Your task to perform on an android device: set an alarm Image 0: 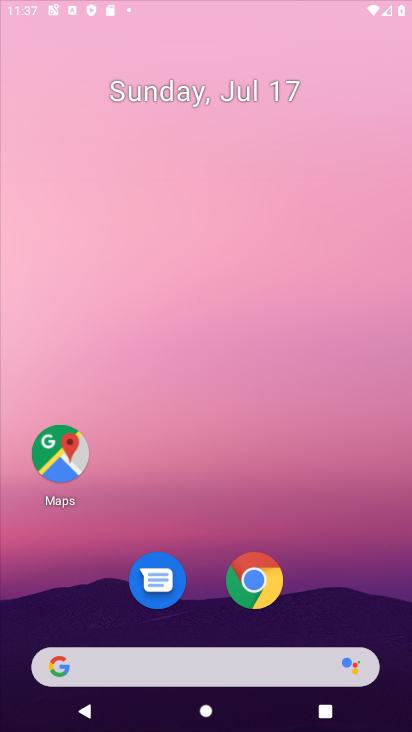
Step 0: press home button
Your task to perform on an android device: set an alarm Image 1: 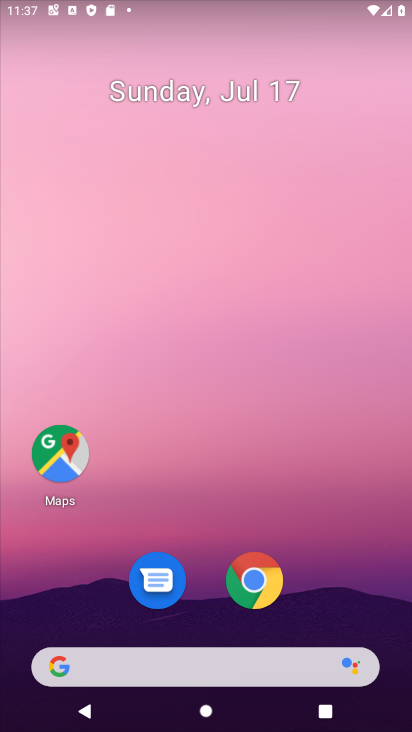
Step 1: drag from (217, 653) to (230, 222)
Your task to perform on an android device: set an alarm Image 2: 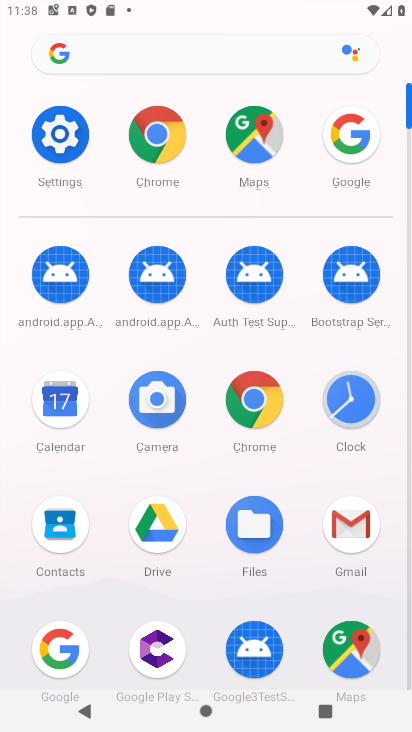
Step 2: click (364, 404)
Your task to perform on an android device: set an alarm Image 3: 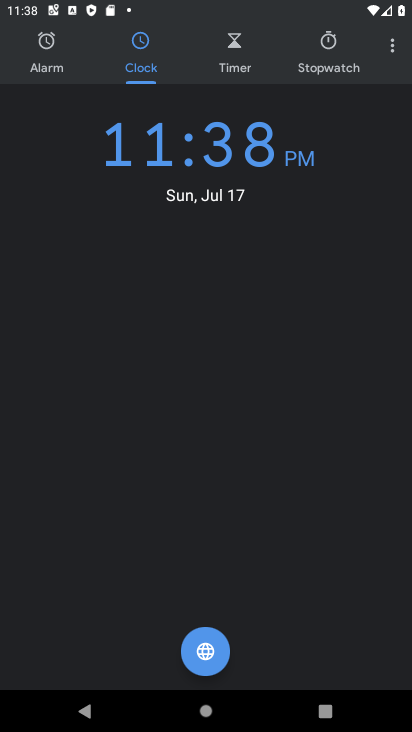
Step 3: click (46, 63)
Your task to perform on an android device: set an alarm Image 4: 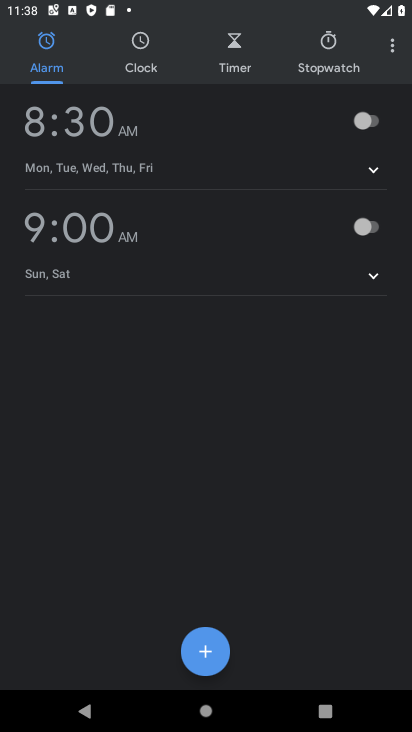
Step 4: click (206, 661)
Your task to perform on an android device: set an alarm Image 5: 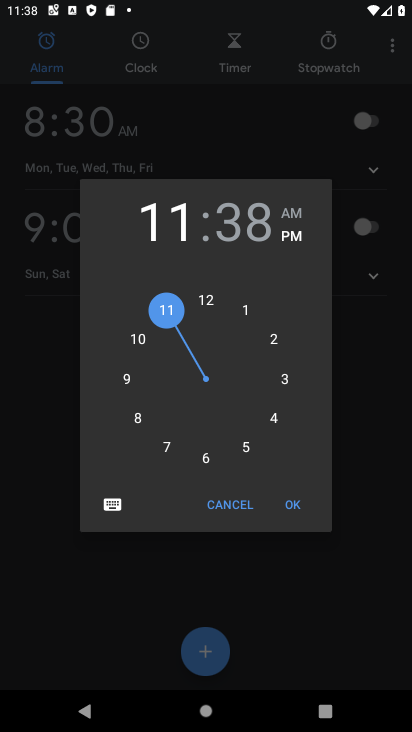
Step 5: click (290, 509)
Your task to perform on an android device: set an alarm Image 6: 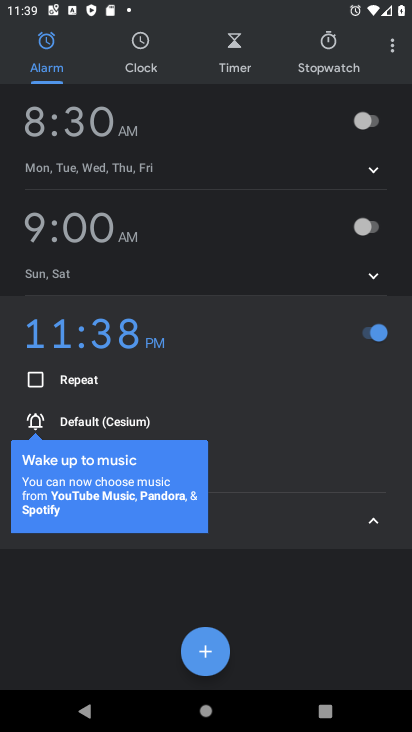
Step 6: task complete